Your task to perform on an android device: Find coffee shops on Maps Image 0: 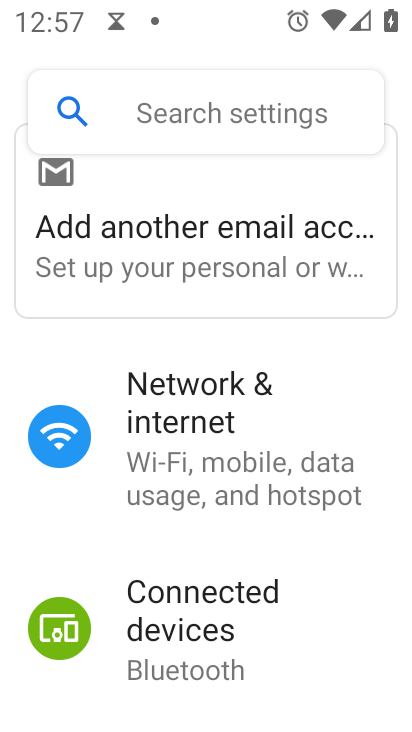
Step 0: press home button
Your task to perform on an android device: Find coffee shops on Maps Image 1: 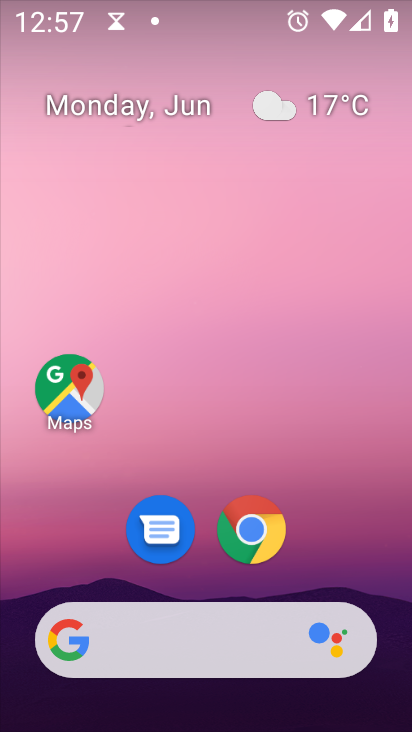
Step 1: drag from (344, 588) to (411, 30)
Your task to perform on an android device: Find coffee shops on Maps Image 2: 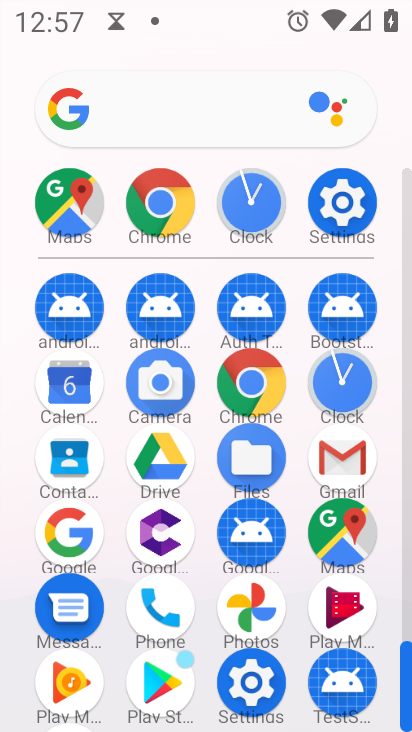
Step 2: click (343, 556)
Your task to perform on an android device: Find coffee shops on Maps Image 3: 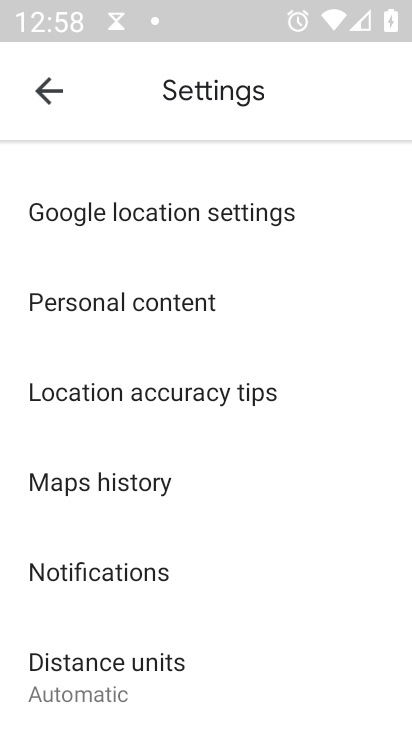
Step 3: click (53, 117)
Your task to perform on an android device: Find coffee shops on Maps Image 4: 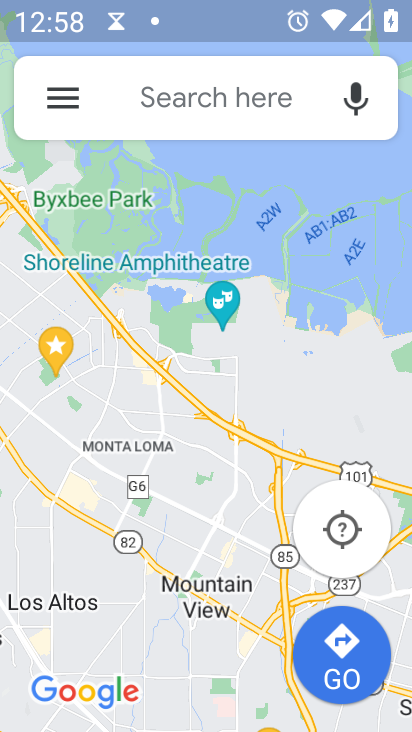
Step 4: click (135, 93)
Your task to perform on an android device: Find coffee shops on Maps Image 5: 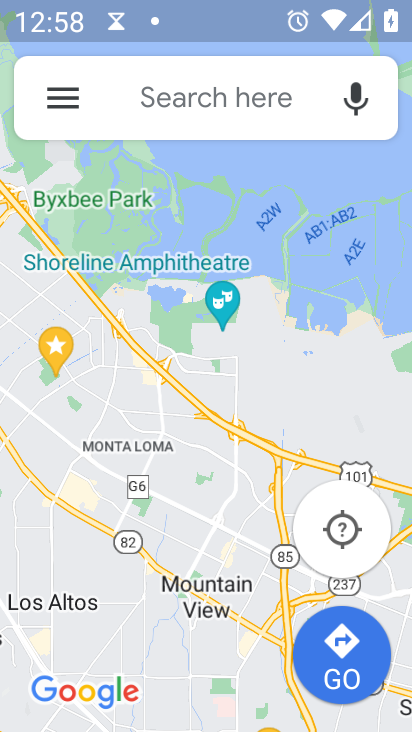
Step 5: click (181, 101)
Your task to perform on an android device: Find coffee shops on Maps Image 6: 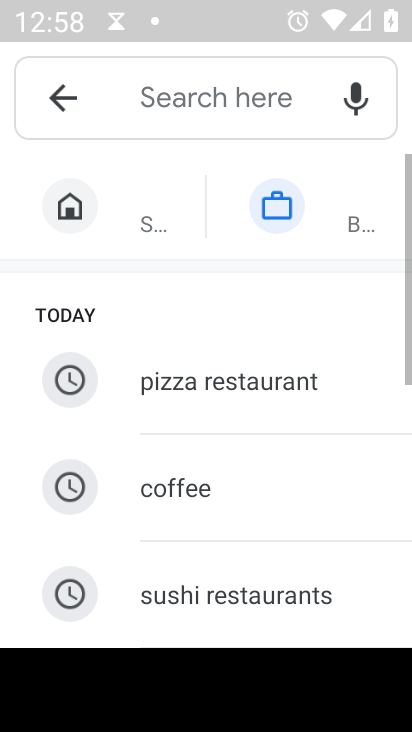
Step 6: click (179, 533)
Your task to perform on an android device: Find coffee shops on Maps Image 7: 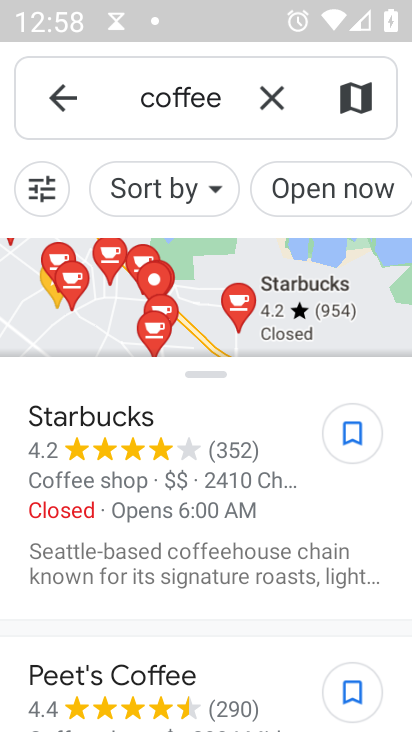
Step 7: task complete